Your task to perform on an android device: open app "Upside-Cash back on gas & food" (install if not already installed), go to login, and select forgot password Image 0: 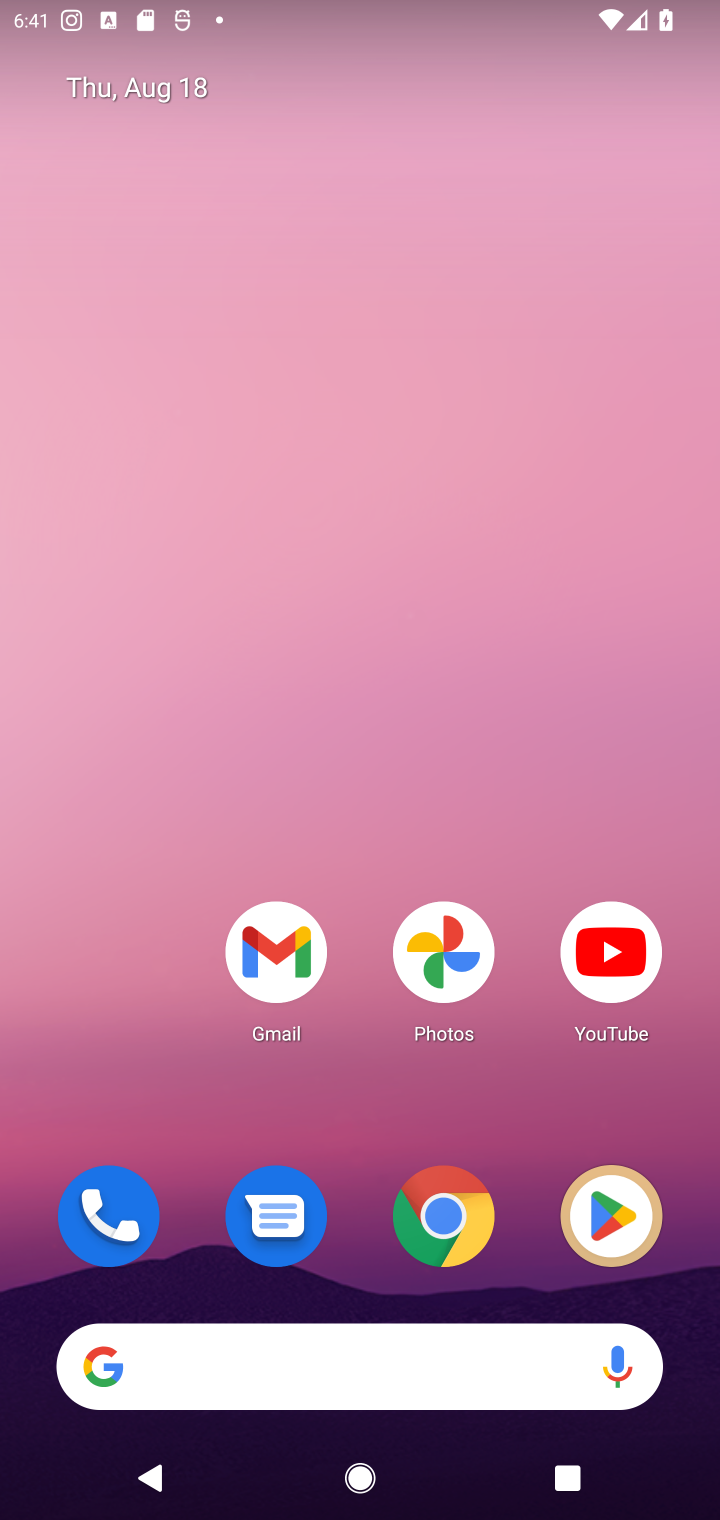
Step 0: click (607, 1203)
Your task to perform on an android device: open app "Upside-Cash back on gas & food" (install if not already installed), go to login, and select forgot password Image 1: 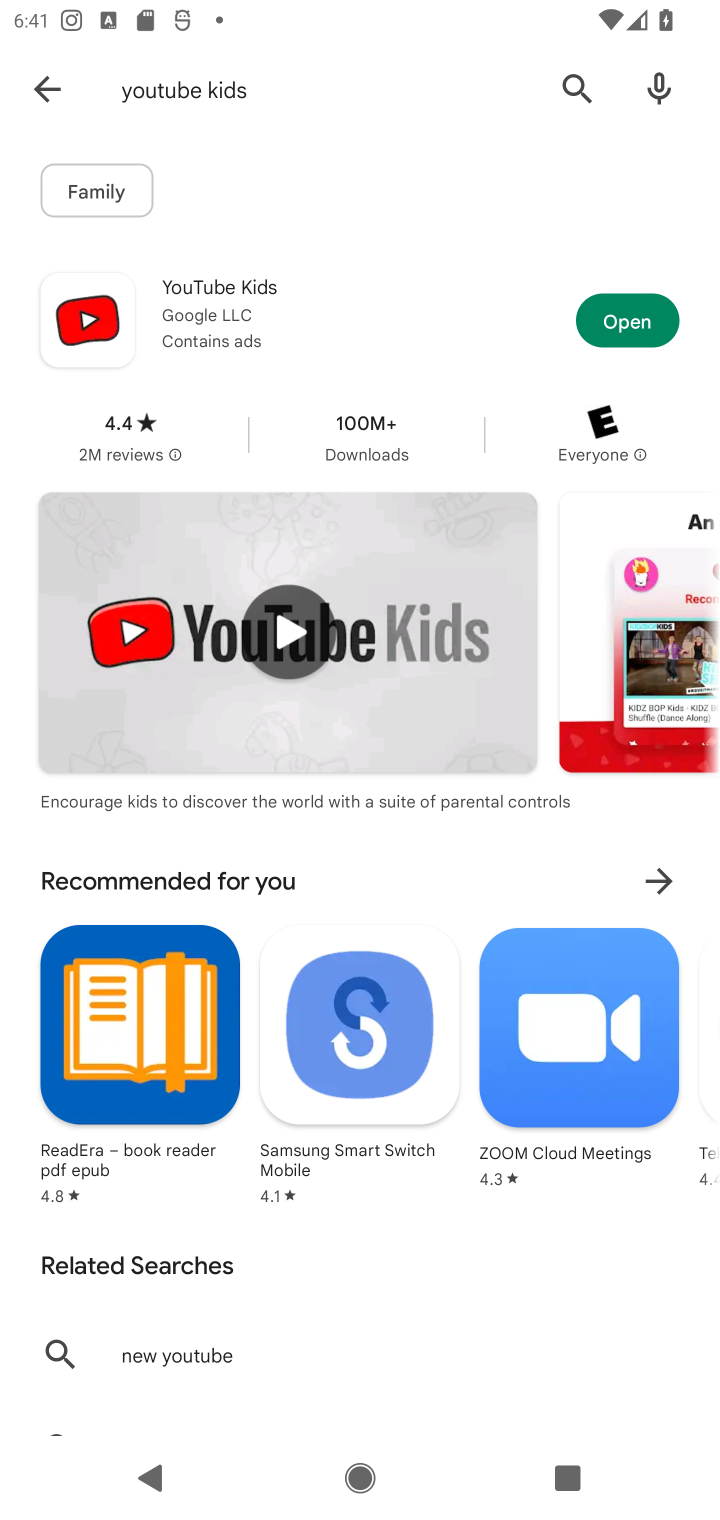
Step 1: click (581, 86)
Your task to perform on an android device: open app "Upside-Cash back on gas & food" (install if not already installed), go to login, and select forgot password Image 2: 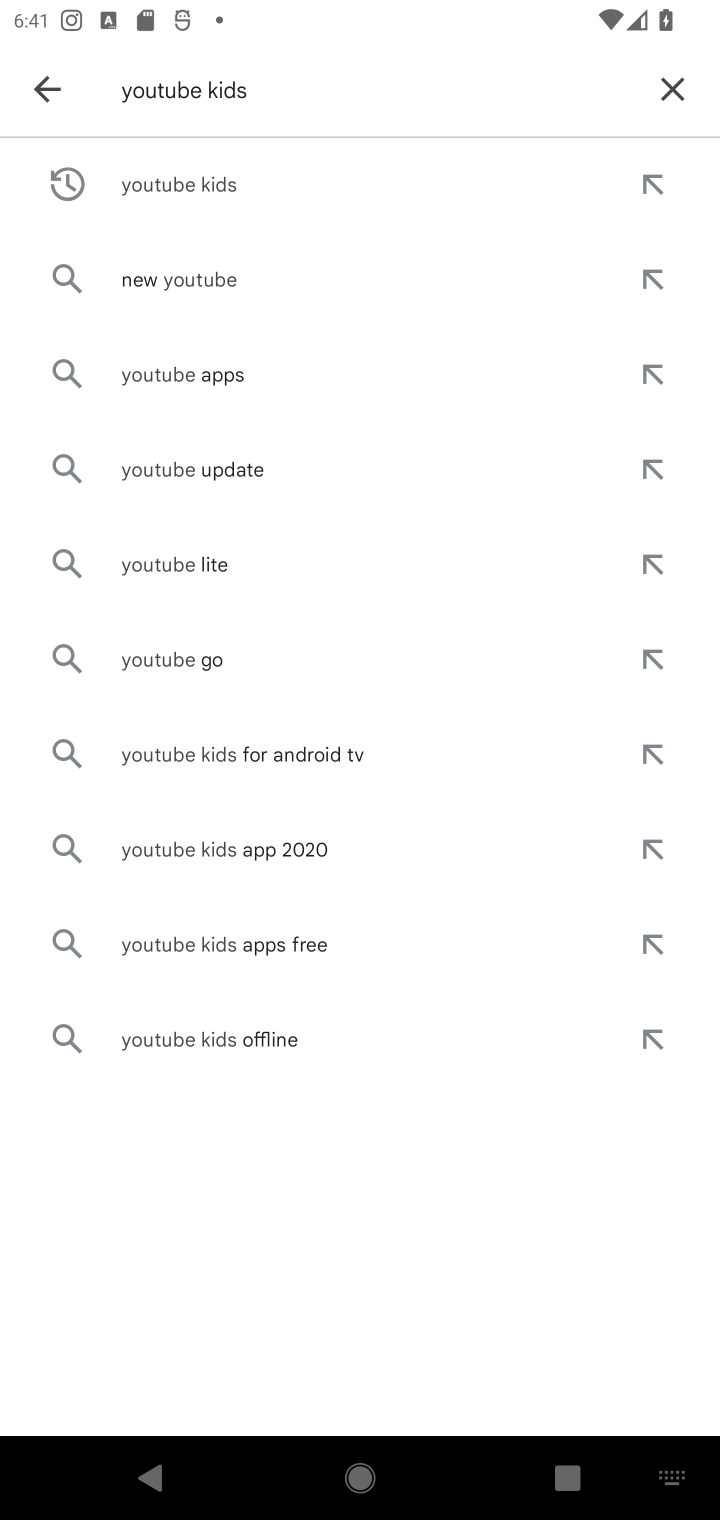
Step 2: click (664, 84)
Your task to perform on an android device: open app "Upside-Cash back on gas & food" (install if not already installed), go to login, and select forgot password Image 3: 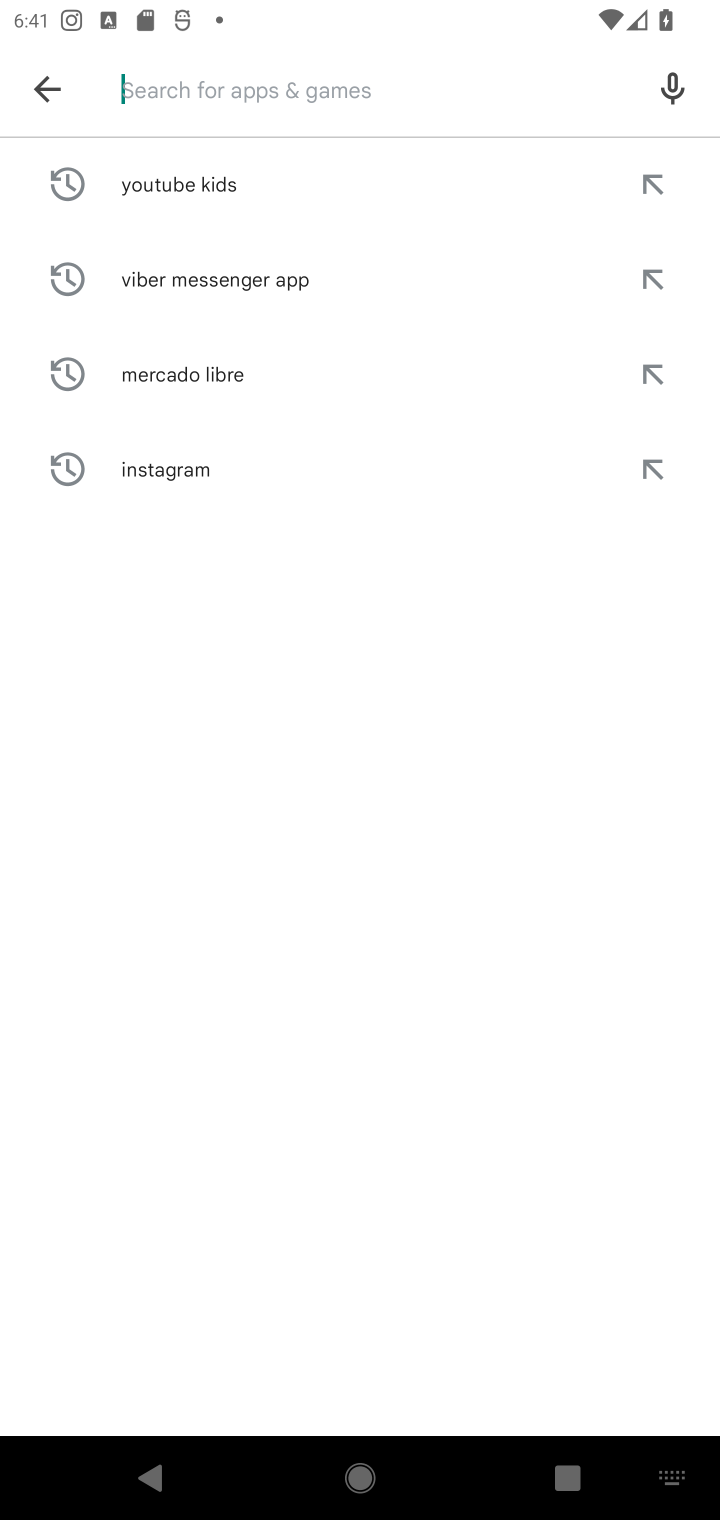
Step 3: type "Upside-Cash back on gas & food"
Your task to perform on an android device: open app "Upside-Cash back on gas & food" (install if not already installed), go to login, and select forgot password Image 4: 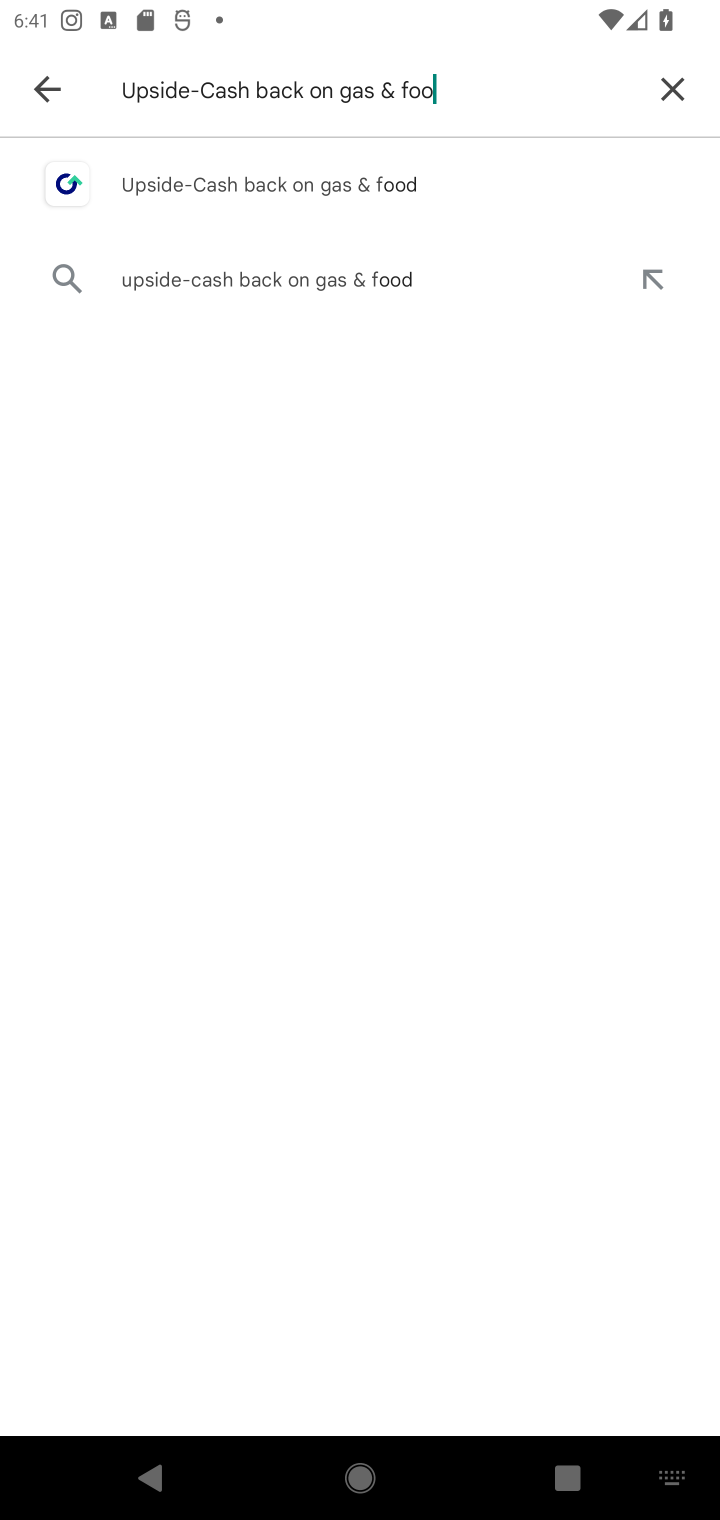
Step 4: type ""
Your task to perform on an android device: open app "Upside-Cash back on gas & food" (install if not already installed), go to login, and select forgot password Image 5: 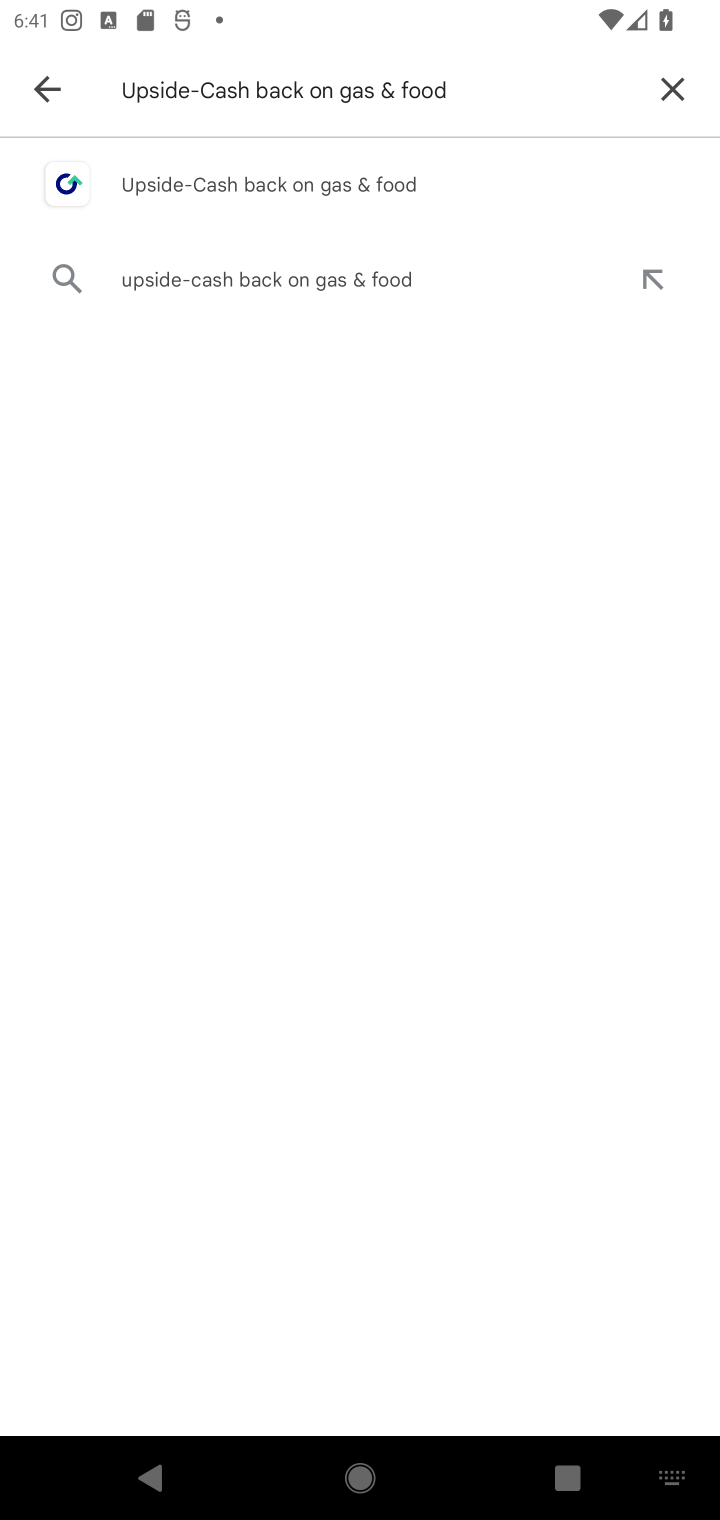
Step 5: click (315, 192)
Your task to perform on an android device: open app "Upside-Cash back on gas & food" (install if not already installed), go to login, and select forgot password Image 6: 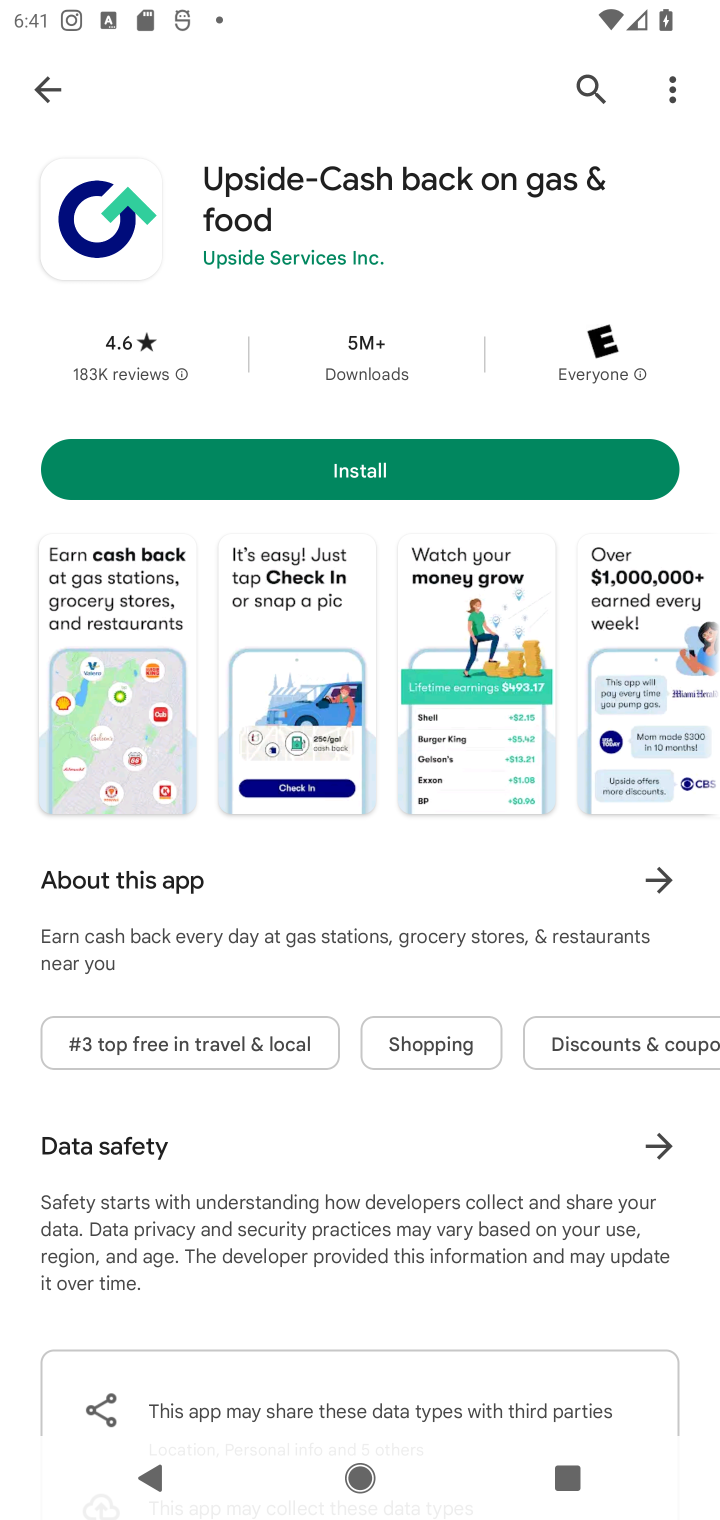
Step 6: click (311, 466)
Your task to perform on an android device: open app "Upside-Cash back on gas & food" (install if not already installed), go to login, and select forgot password Image 7: 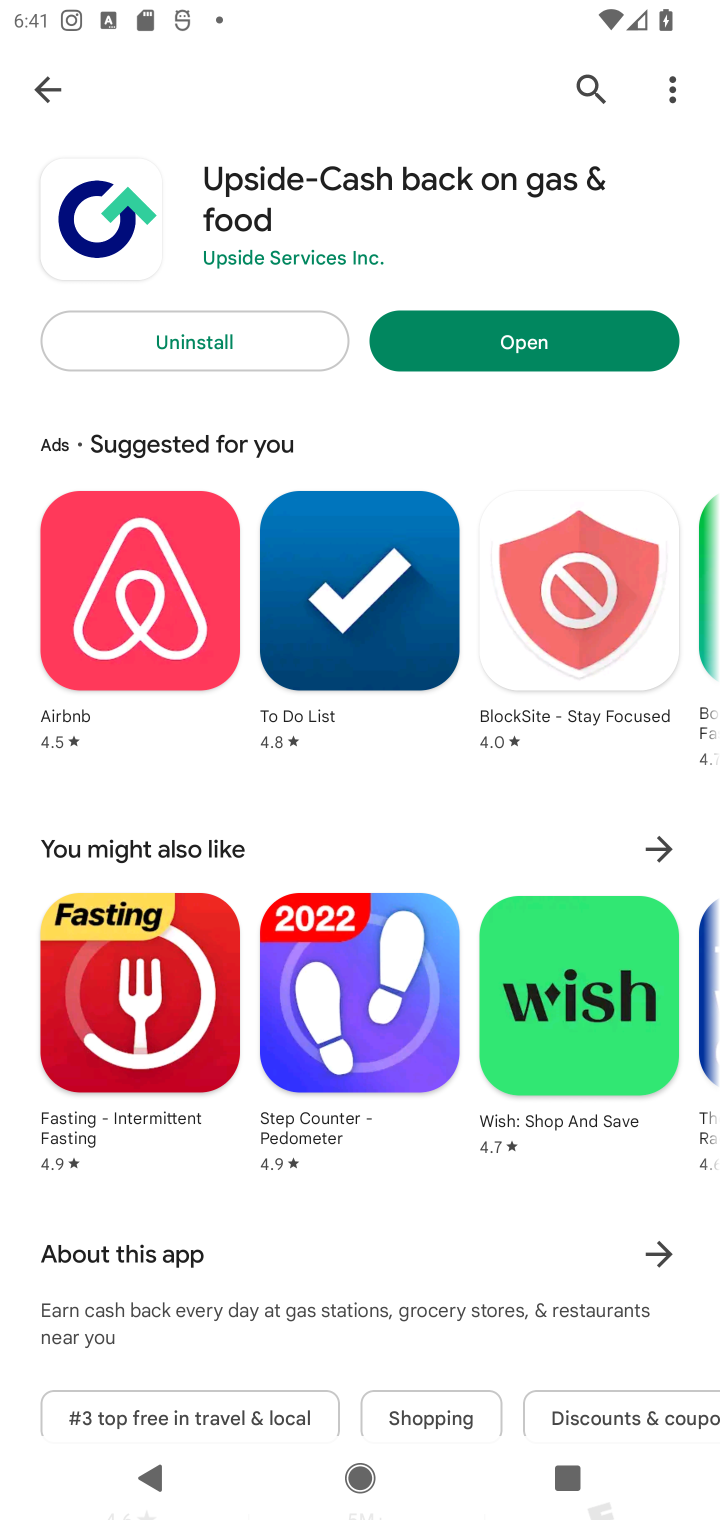
Step 7: click (470, 341)
Your task to perform on an android device: open app "Upside-Cash back on gas & food" (install if not already installed), go to login, and select forgot password Image 8: 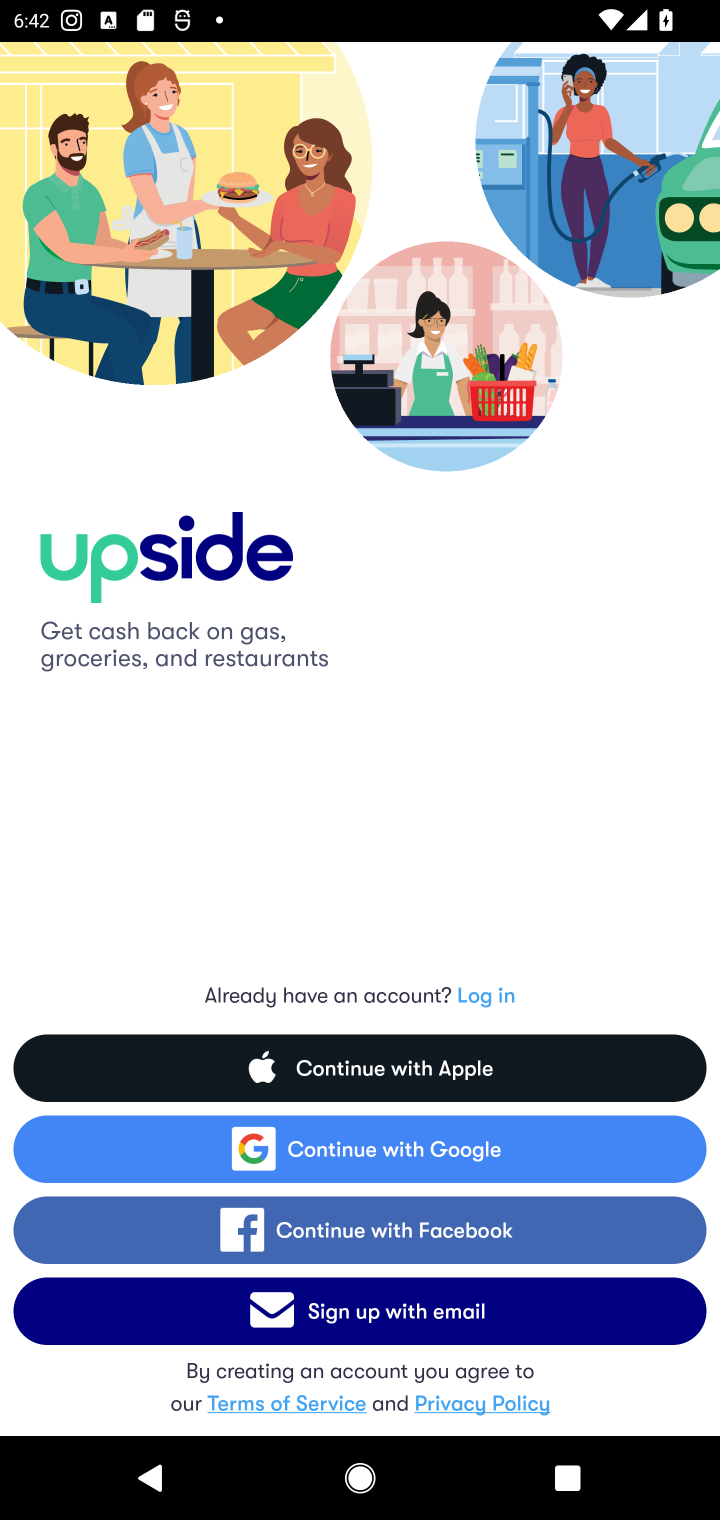
Step 8: task complete